Your task to perform on an android device: visit the assistant section in the google photos Image 0: 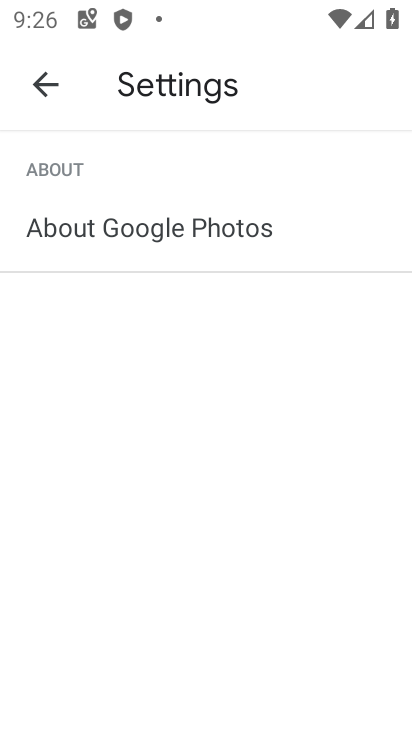
Step 0: press home button
Your task to perform on an android device: visit the assistant section in the google photos Image 1: 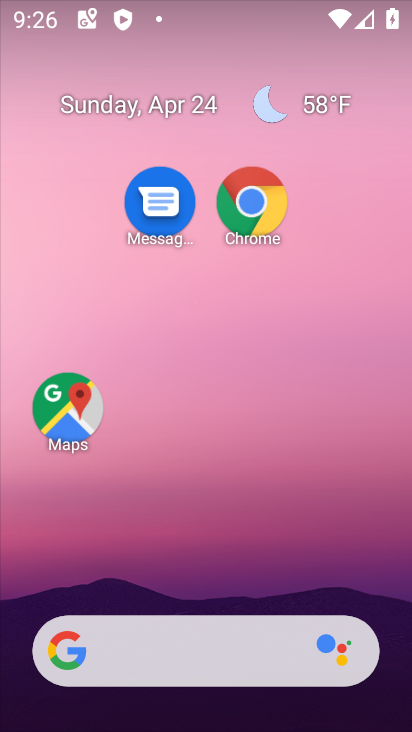
Step 1: drag from (225, 724) to (213, 208)
Your task to perform on an android device: visit the assistant section in the google photos Image 2: 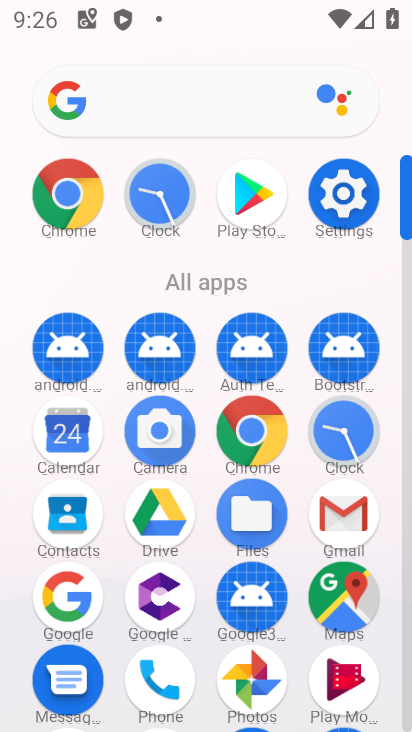
Step 2: click (250, 672)
Your task to perform on an android device: visit the assistant section in the google photos Image 3: 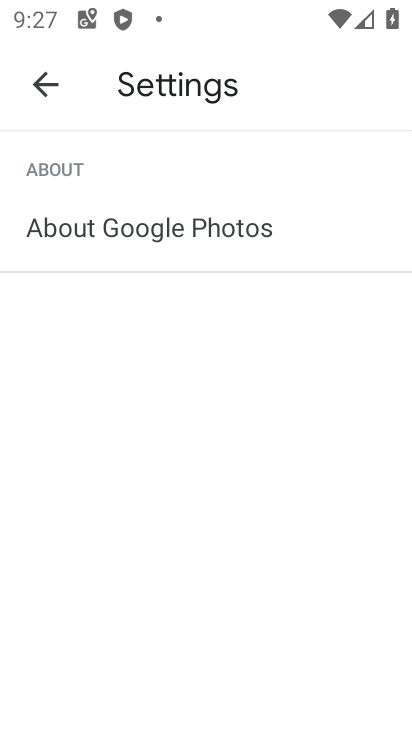
Step 3: click (46, 81)
Your task to perform on an android device: visit the assistant section in the google photos Image 4: 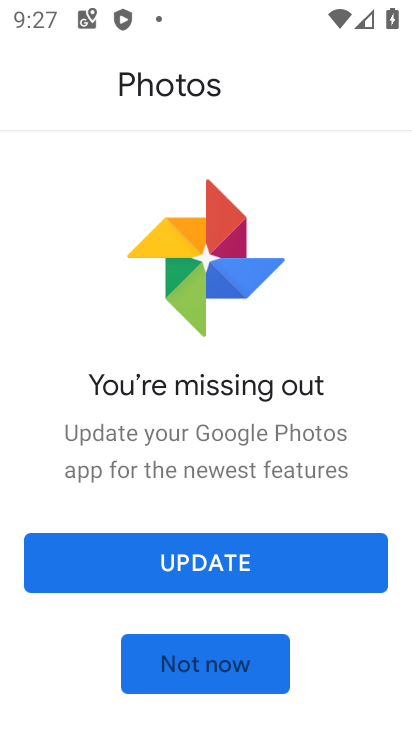
Step 4: click (230, 670)
Your task to perform on an android device: visit the assistant section in the google photos Image 5: 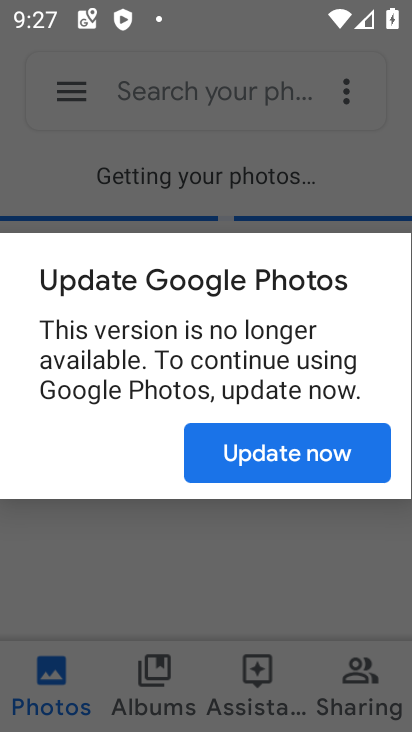
Step 5: click (254, 689)
Your task to perform on an android device: visit the assistant section in the google photos Image 6: 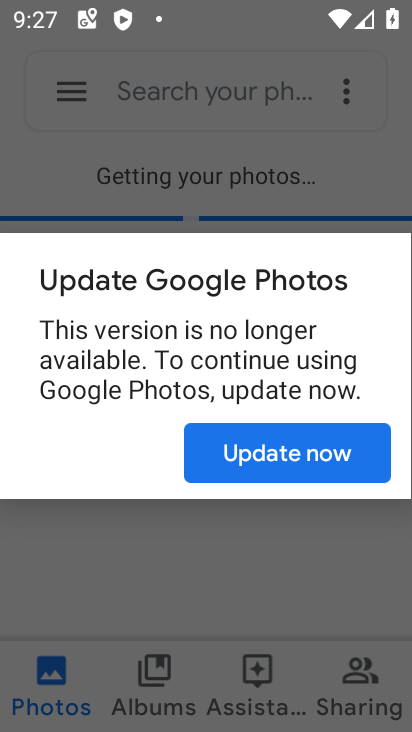
Step 6: task complete